Your task to perform on an android device: Open Youtube and go to "Your channel" Image 0: 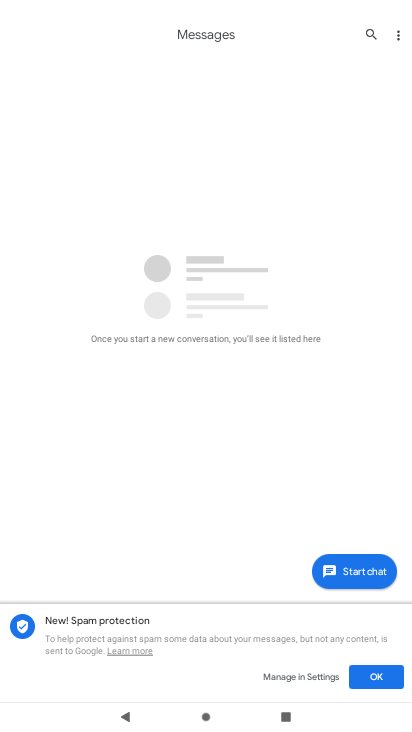
Step 0: press home button
Your task to perform on an android device: Open Youtube and go to "Your channel" Image 1: 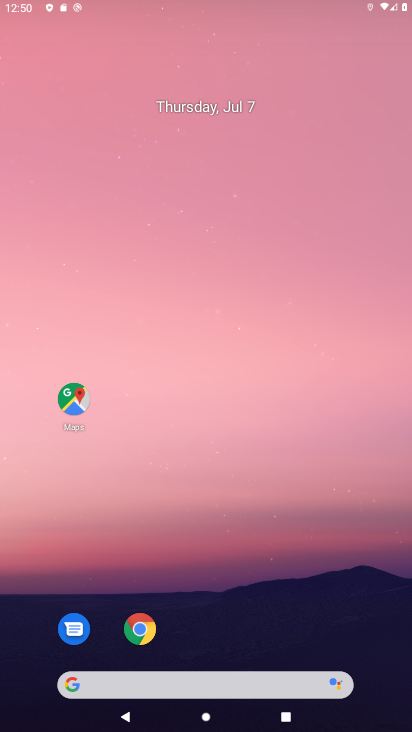
Step 1: drag from (253, 627) to (275, 39)
Your task to perform on an android device: Open Youtube and go to "Your channel" Image 2: 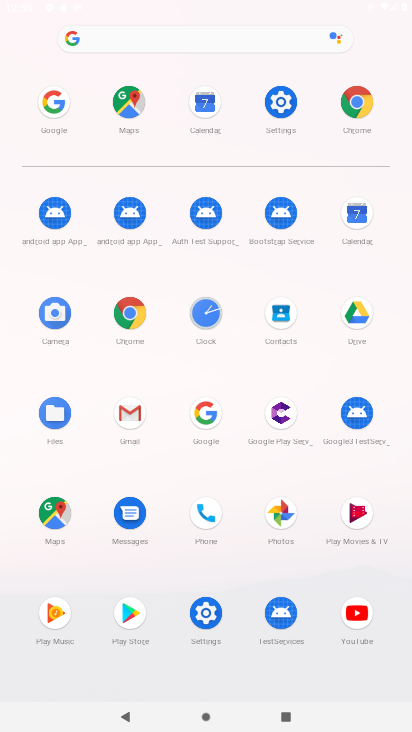
Step 2: click (356, 614)
Your task to perform on an android device: Open Youtube and go to "Your channel" Image 3: 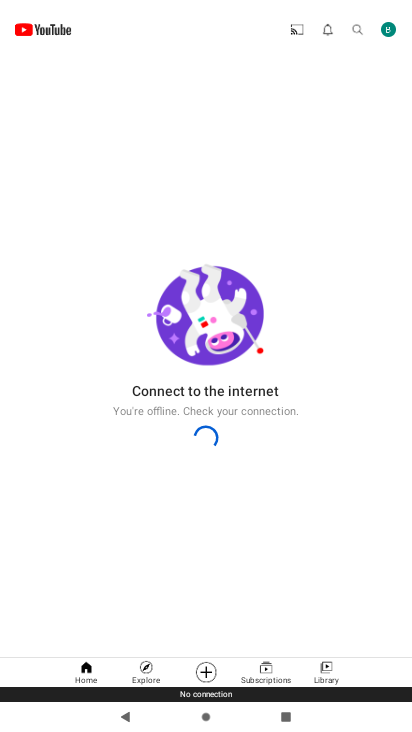
Step 3: click (386, 31)
Your task to perform on an android device: Open Youtube and go to "Your channel" Image 4: 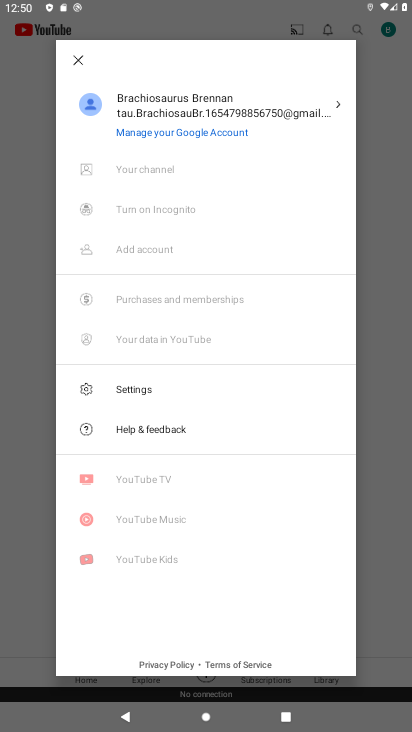
Step 4: click (159, 170)
Your task to perform on an android device: Open Youtube and go to "Your channel" Image 5: 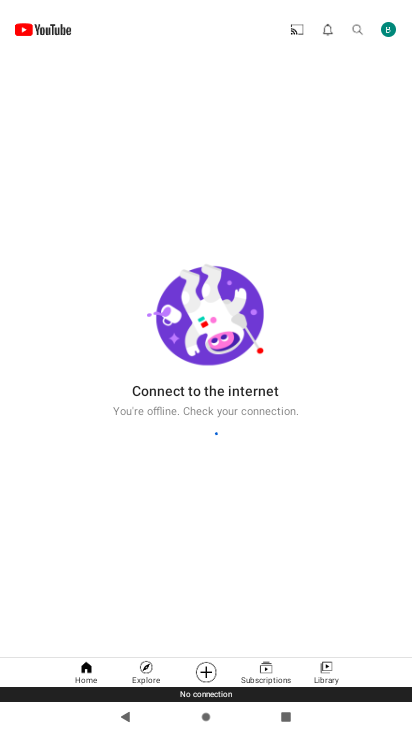
Step 5: task complete